Your task to perform on an android device: delete browsing data in the chrome app Image 0: 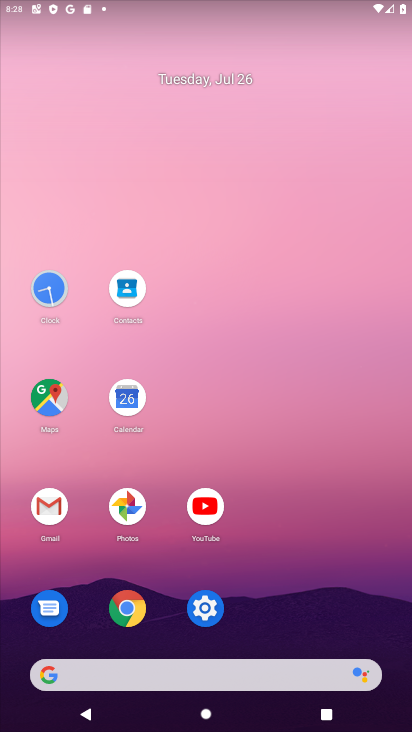
Step 0: click (127, 607)
Your task to perform on an android device: delete browsing data in the chrome app Image 1: 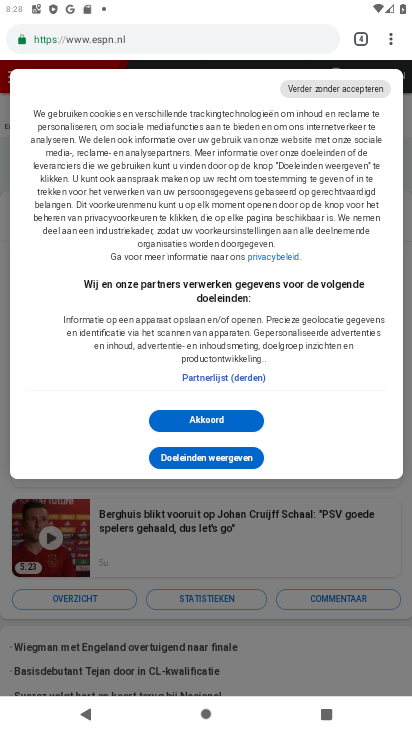
Step 1: click (389, 33)
Your task to perform on an android device: delete browsing data in the chrome app Image 2: 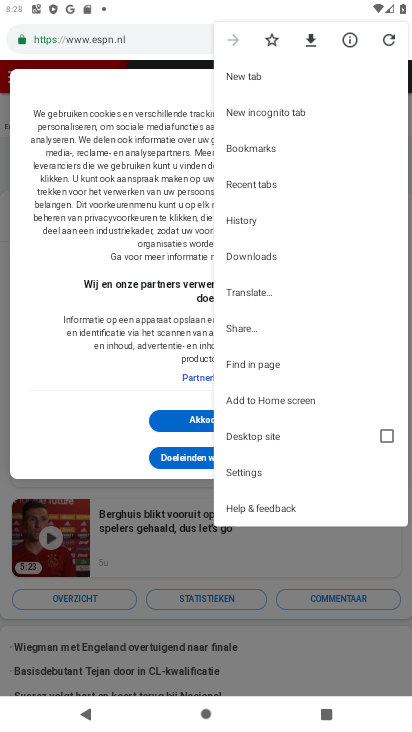
Step 2: click (236, 215)
Your task to perform on an android device: delete browsing data in the chrome app Image 3: 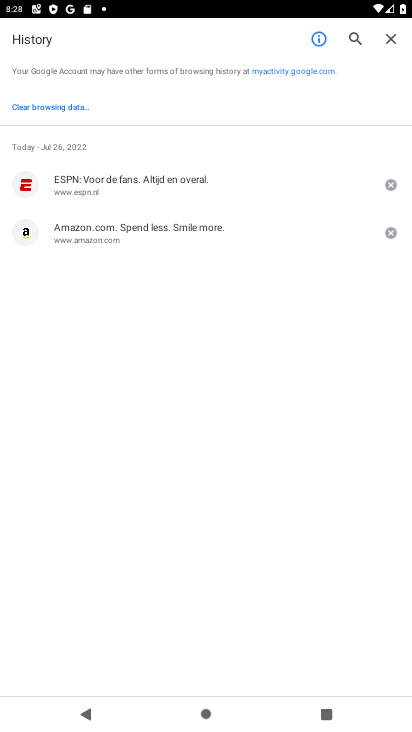
Step 3: click (56, 111)
Your task to perform on an android device: delete browsing data in the chrome app Image 4: 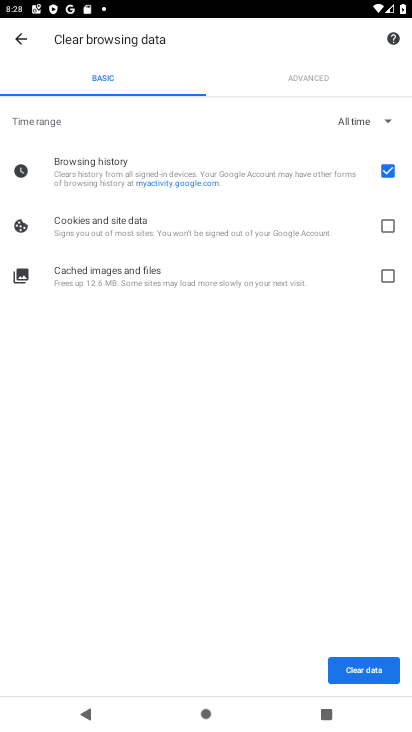
Step 4: click (365, 667)
Your task to perform on an android device: delete browsing data in the chrome app Image 5: 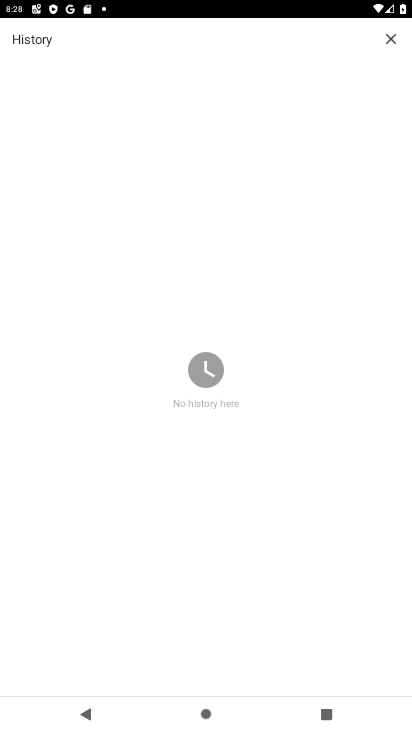
Step 5: task complete